Your task to perform on an android device: Open internet settings Image 0: 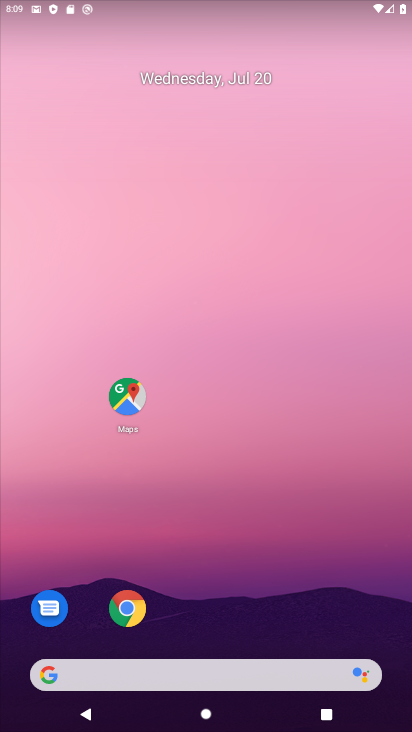
Step 0: drag from (26, 568) to (145, 328)
Your task to perform on an android device: Open internet settings Image 1: 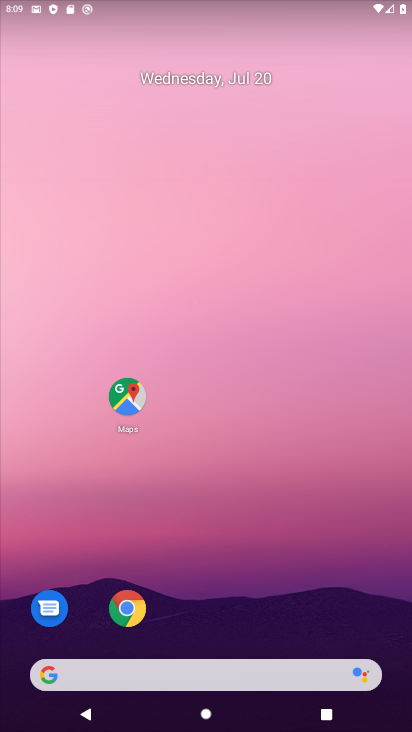
Step 1: drag from (2, 610) to (257, 143)
Your task to perform on an android device: Open internet settings Image 2: 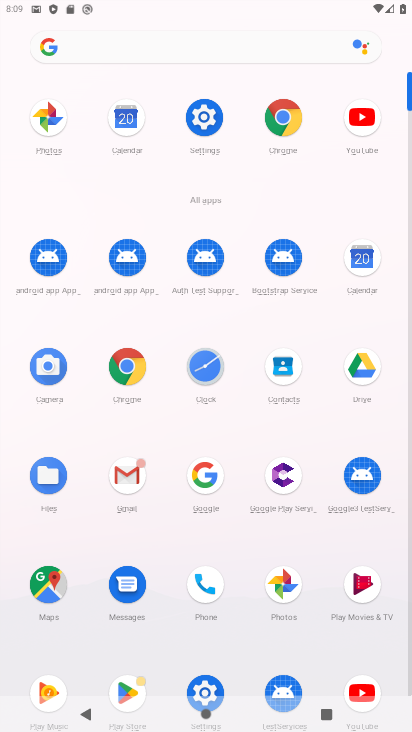
Step 2: click (205, 108)
Your task to perform on an android device: Open internet settings Image 3: 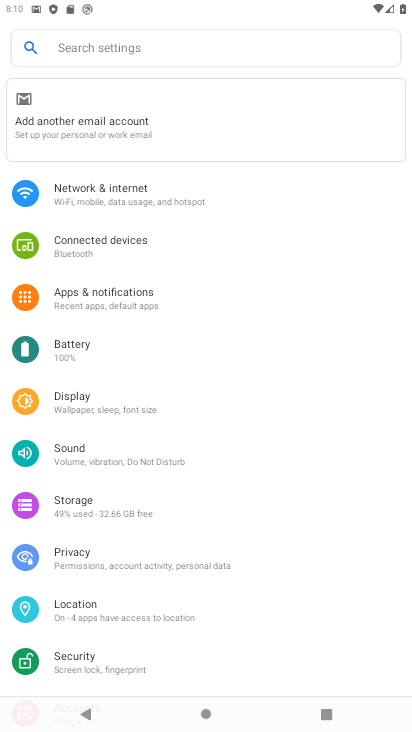
Step 3: click (147, 189)
Your task to perform on an android device: Open internet settings Image 4: 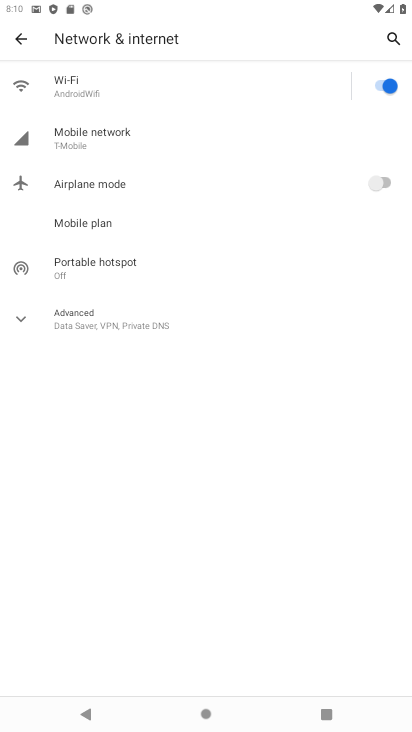
Step 4: click (81, 150)
Your task to perform on an android device: Open internet settings Image 5: 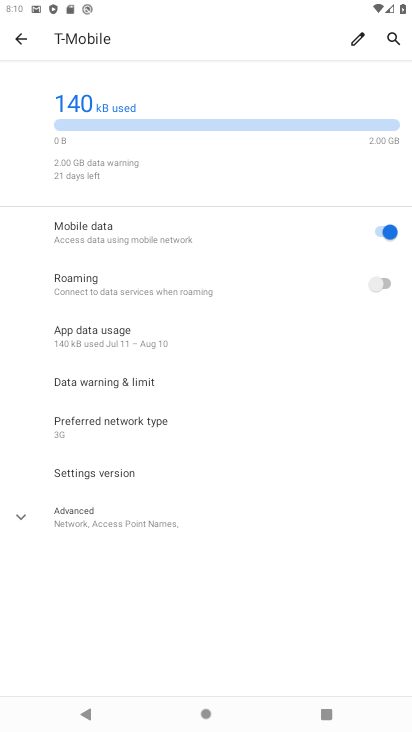
Step 5: task complete